Your task to perform on an android device: change the clock style Image 0: 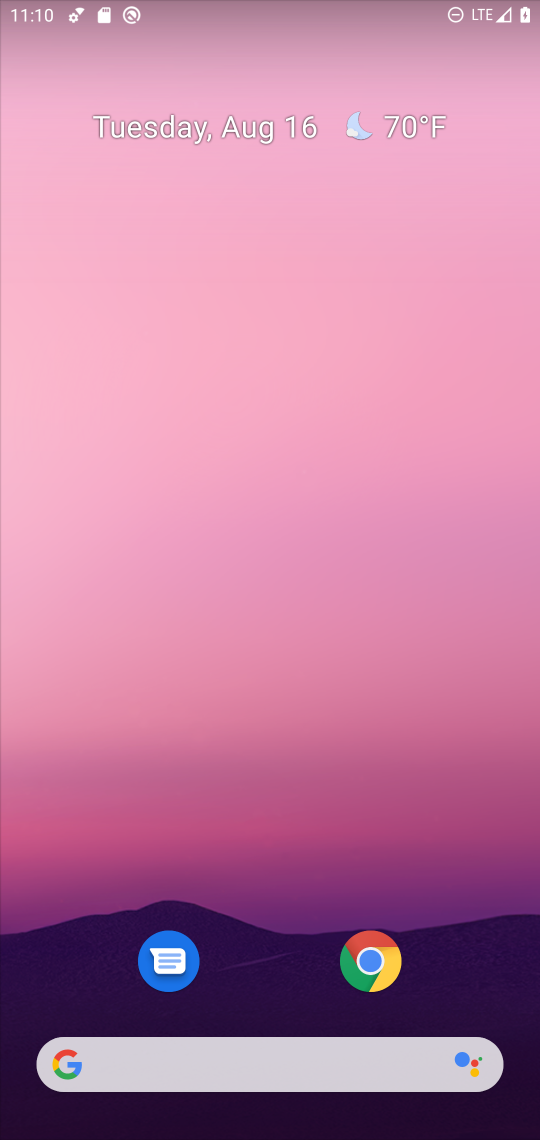
Step 0: drag from (284, 983) to (429, 84)
Your task to perform on an android device: change the clock style Image 1: 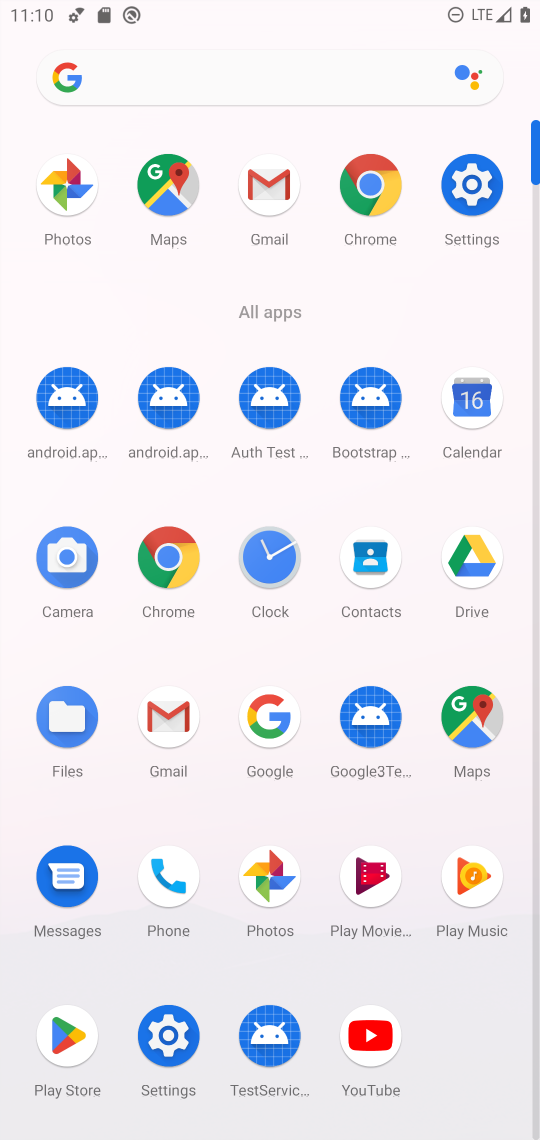
Step 1: click (272, 576)
Your task to perform on an android device: change the clock style Image 2: 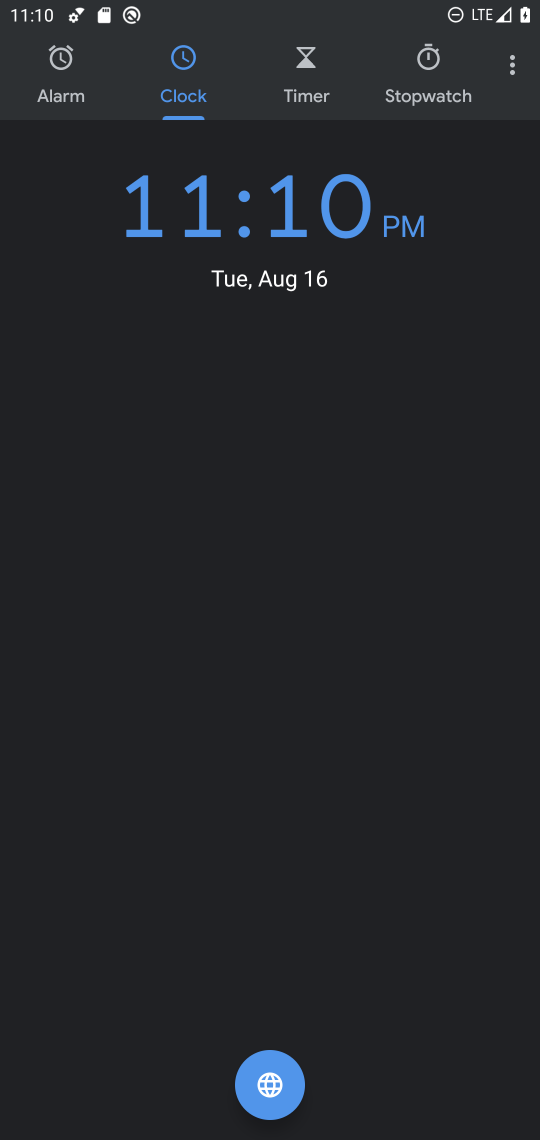
Step 2: click (514, 89)
Your task to perform on an android device: change the clock style Image 3: 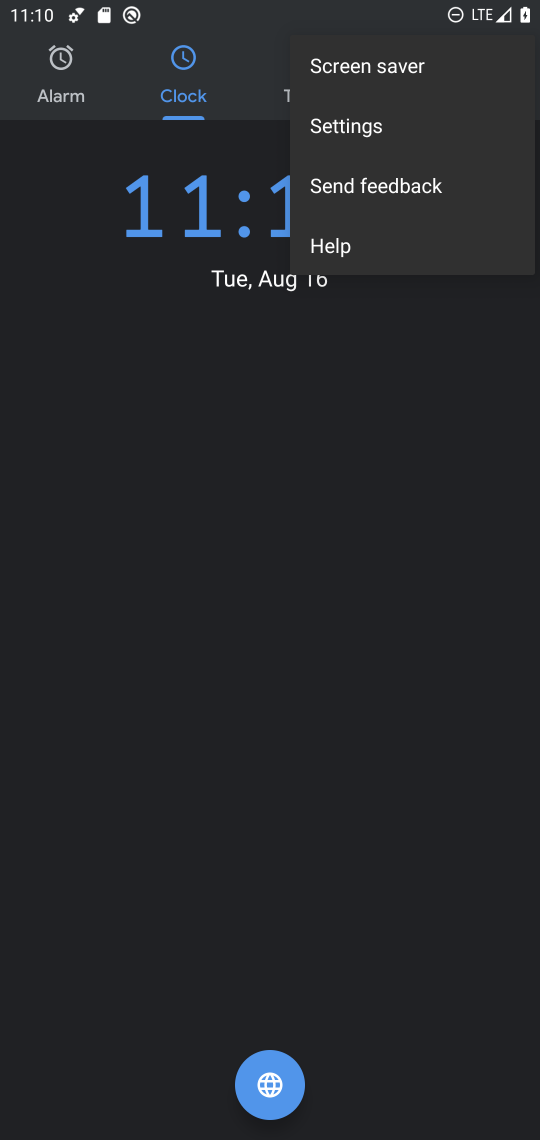
Step 3: click (347, 141)
Your task to perform on an android device: change the clock style Image 4: 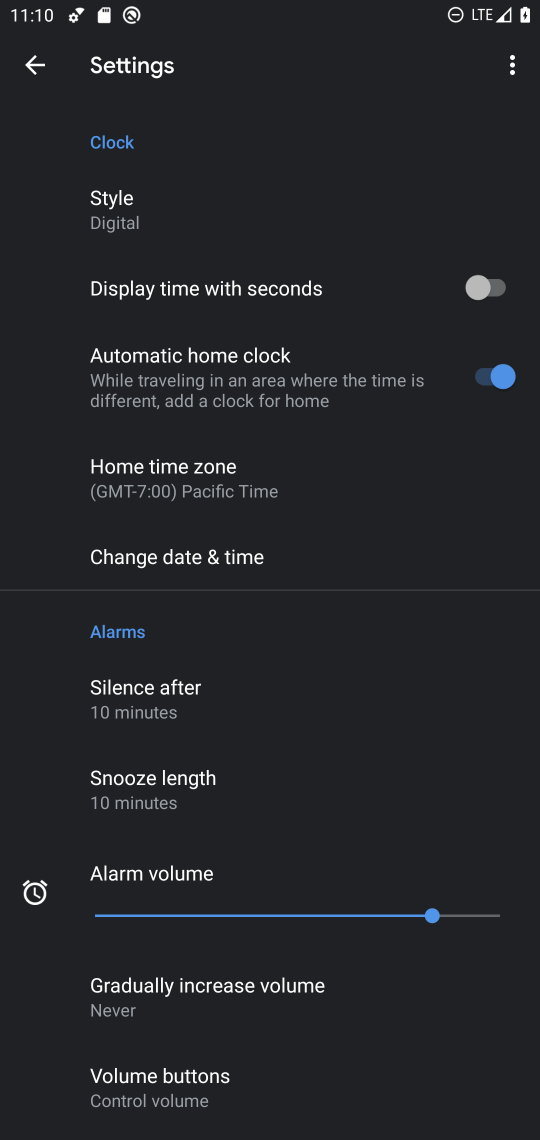
Step 4: click (129, 207)
Your task to perform on an android device: change the clock style Image 5: 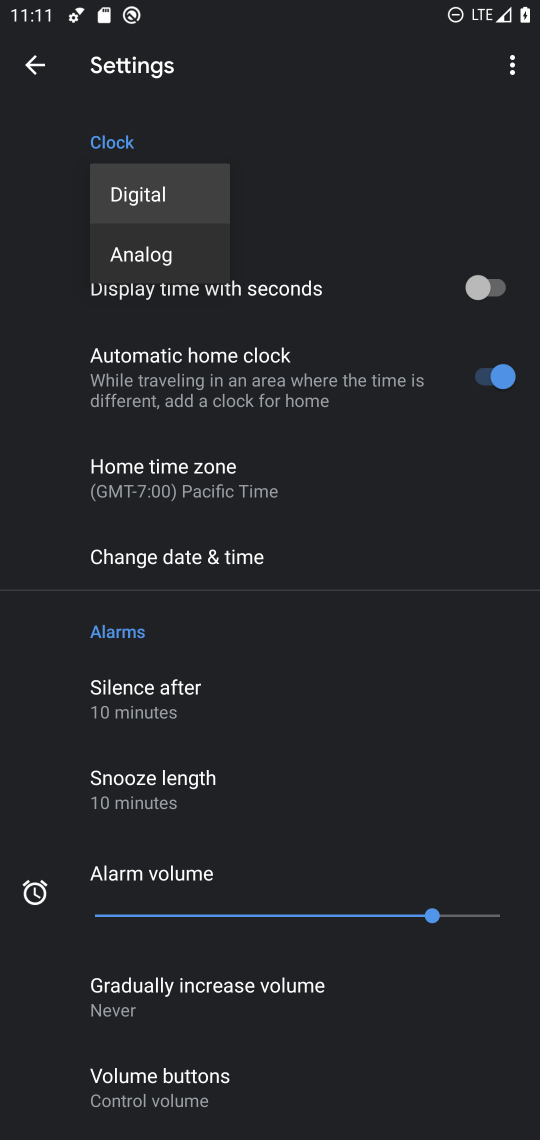
Step 5: click (138, 249)
Your task to perform on an android device: change the clock style Image 6: 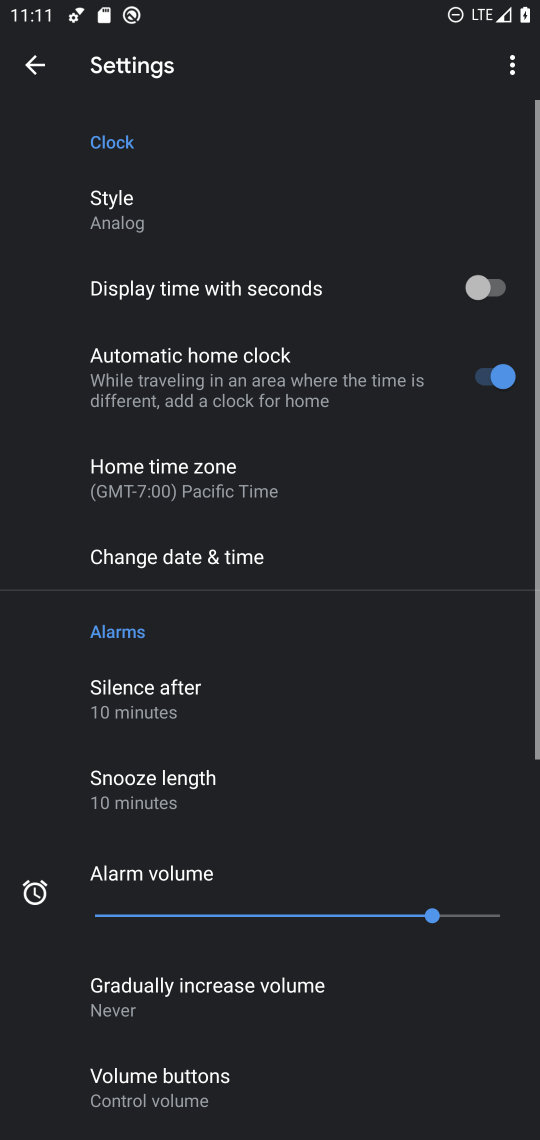
Step 6: task complete